Your task to perform on an android device: turn off translation in the chrome app Image 0: 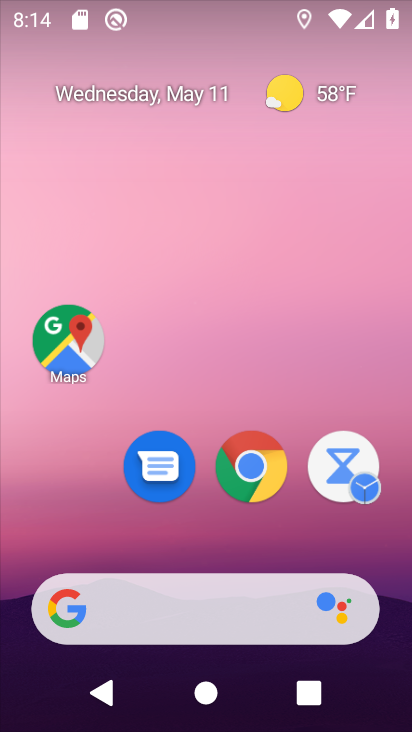
Step 0: click (264, 471)
Your task to perform on an android device: turn off translation in the chrome app Image 1: 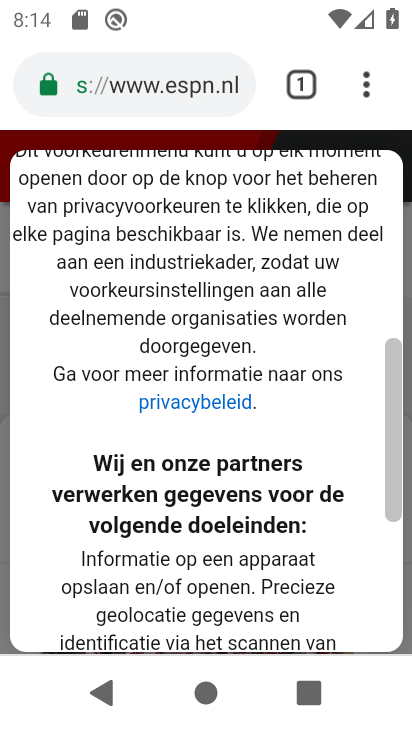
Step 1: click (362, 94)
Your task to perform on an android device: turn off translation in the chrome app Image 2: 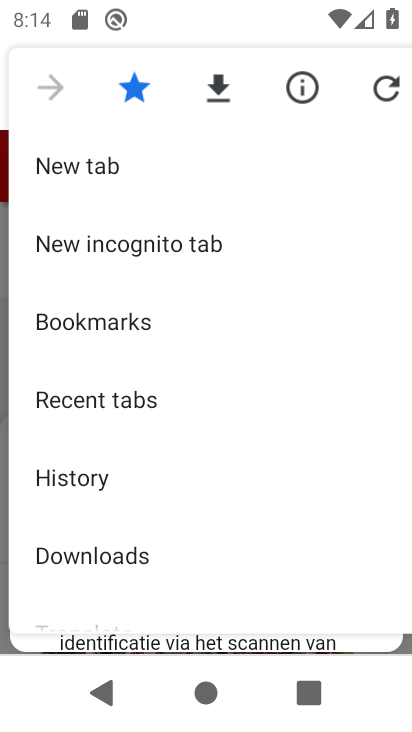
Step 2: drag from (198, 550) to (210, 422)
Your task to perform on an android device: turn off translation in the chrome app Image 3: 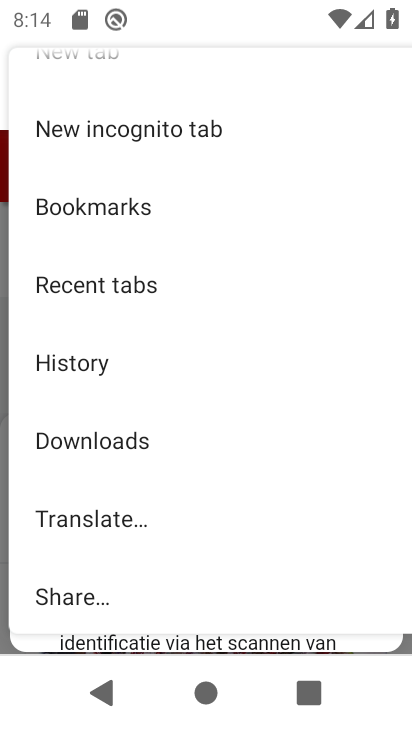
Step 3: drag from (152, 562) to (174, 437)
Your task to perform on an android device: turn off translation in the chrome app Image 4: 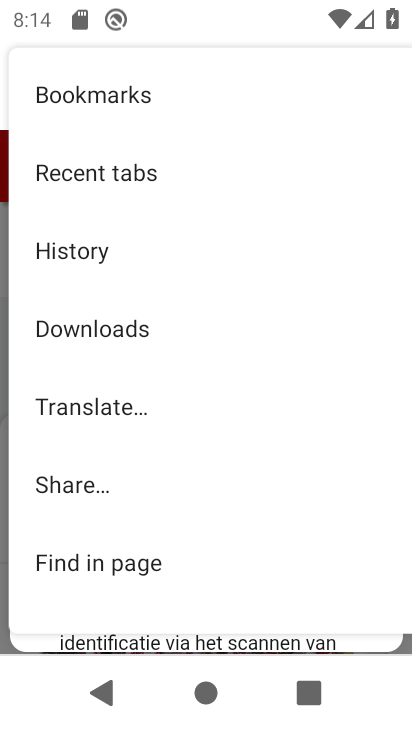
Step 4: drag from (172, 566) to (179, 447)
Your task to perform on an android device: turn off translation in the chrome app Image 5: 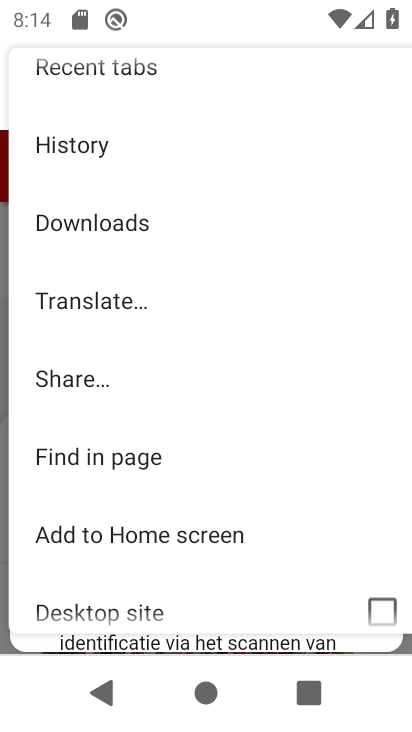
Step 5: drag from (182, 567) to (183, 447)
Your task to perform on an android device: turn off translation in the chrome app Image 6: 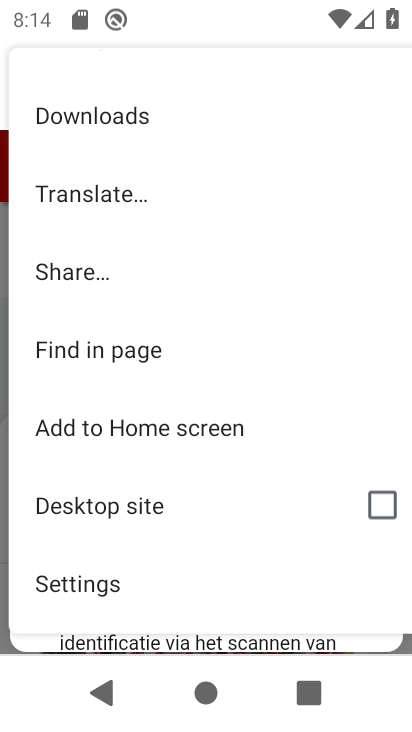
Step 6: click (145, 585)
Your task to perform on an android device: turn off translation in the chrome app Image 7: 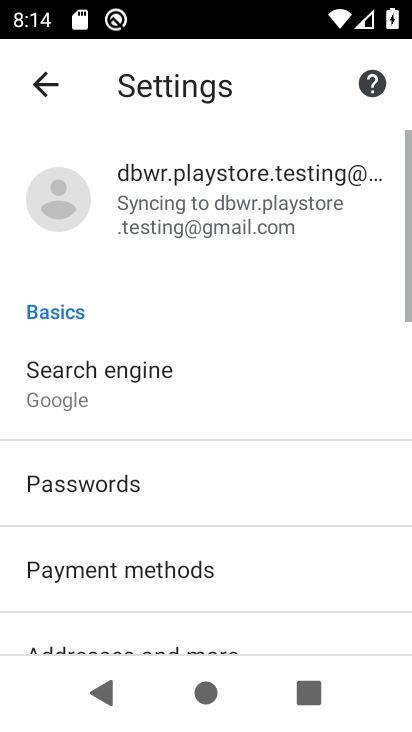
Step 7: drag from (137, 589) to (170, 448)
Your task to perform on an android device: turn off translation in the chrome app Image 8: 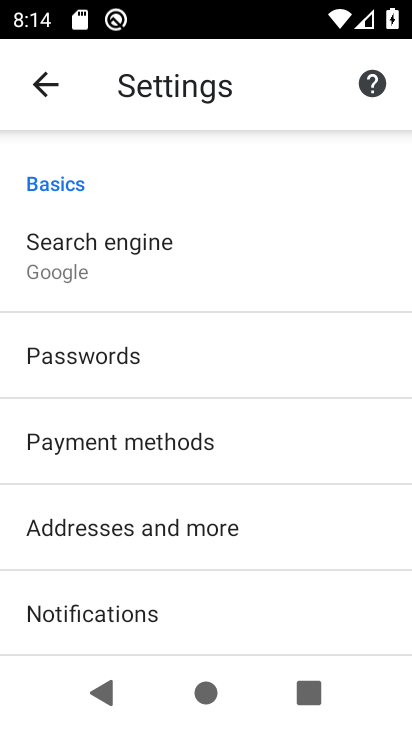
Step 8: drag from (156, 595) to (178, 454)
Your task to perform on an android device: turn off translation in the chrome app Image 9: 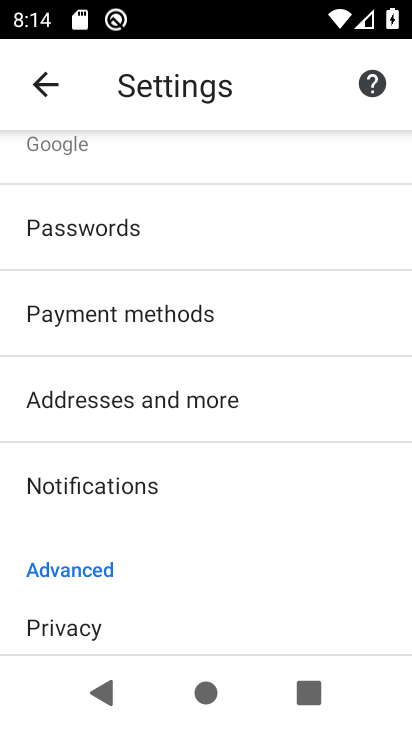
Step 9: drag from (159, 588) to (191, 450)
Your task to perform on an android device: turn off translation in the chrome app Image 10: 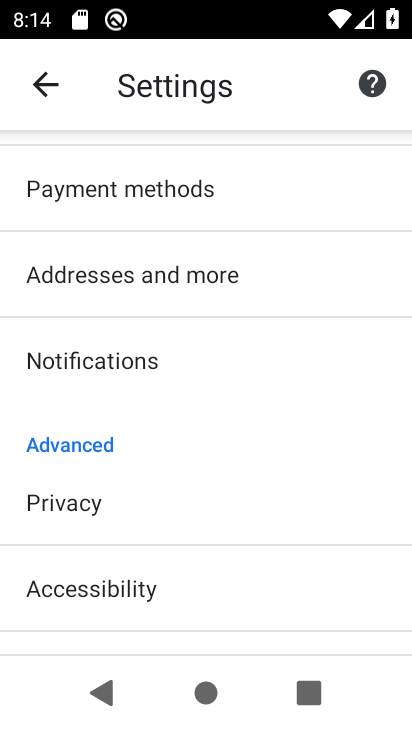
Step 10: drag from (190, 590) to (197, 453)
Your task to perform on an android device: turn off translation in the chrome app Image 11: 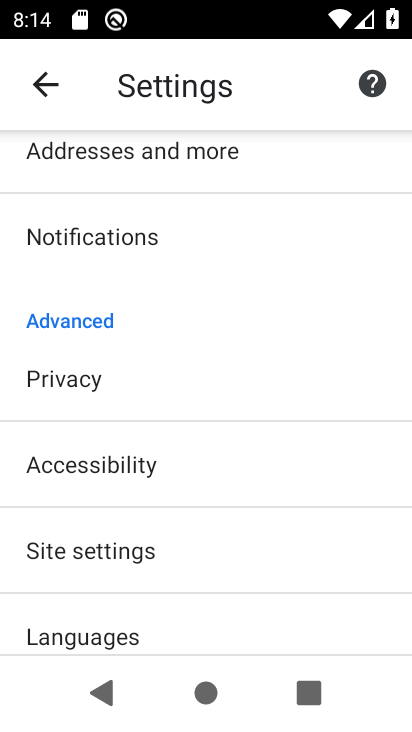
Step 11: click (154, 621)
Your task to perform on an android device: turn off translation in the chrome app Image 12: 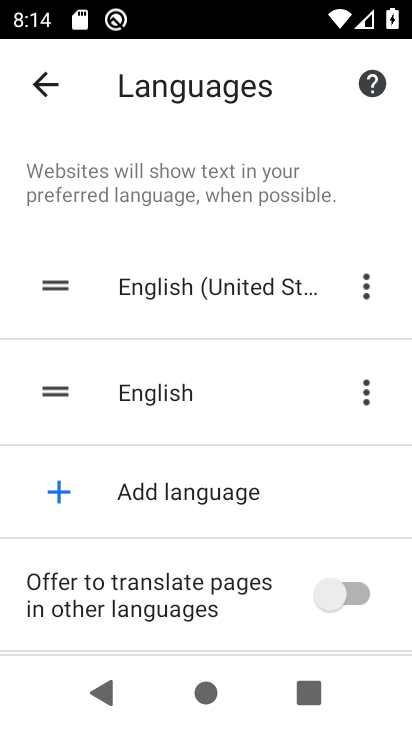
Step 12: task complete